Your task to perform on an android device: Search for seafood restaurants on Google Maps Image 0: 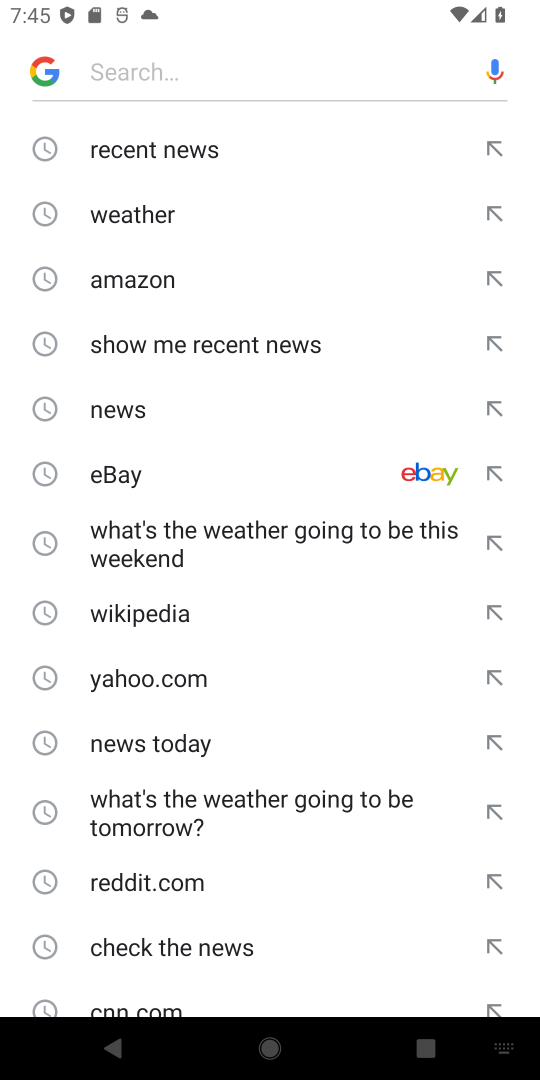
Step 0: press home button
Your task to perform on an android device: Search for seafood restaurants on Google Maps Image 1: 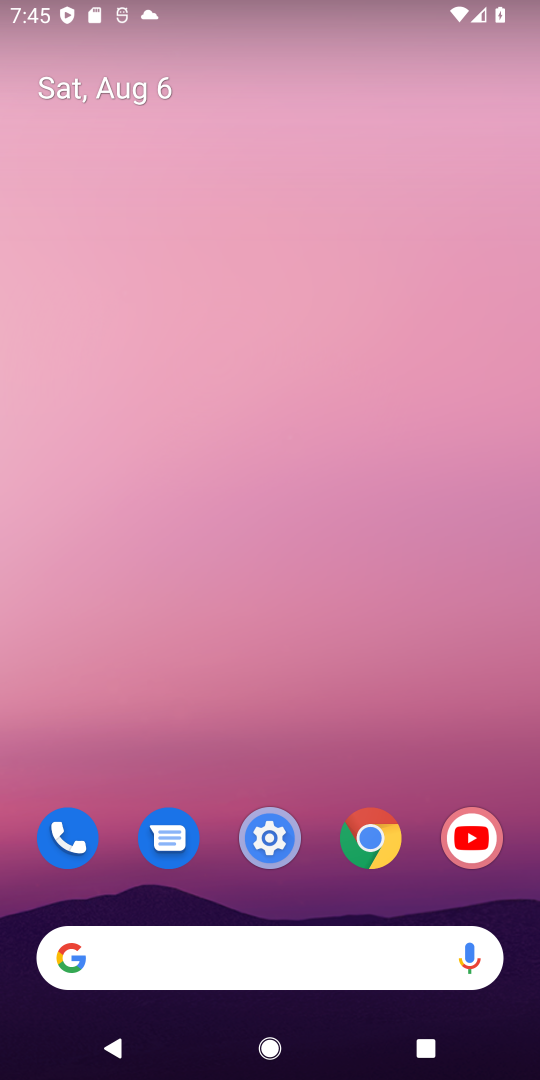
Step 1: drag from (291, 779) to (346, 161)
Your task to perform on an android device: Search for seafood restaurants on Google Maps Image 2: 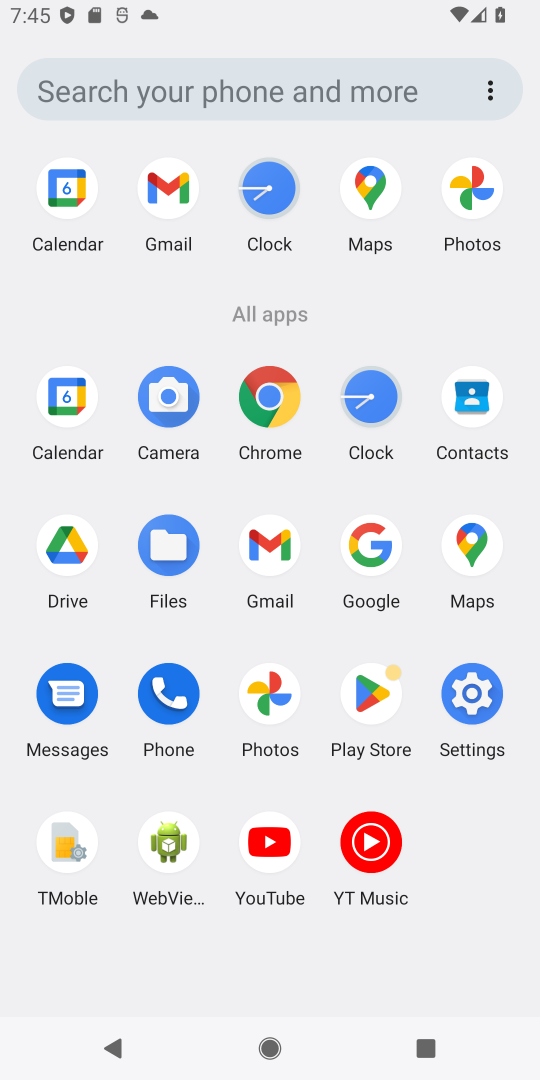
Step 2: click (460, 549)
Your task to perform on an android device: Search for seafood restaurants on Google Maps Image 3: 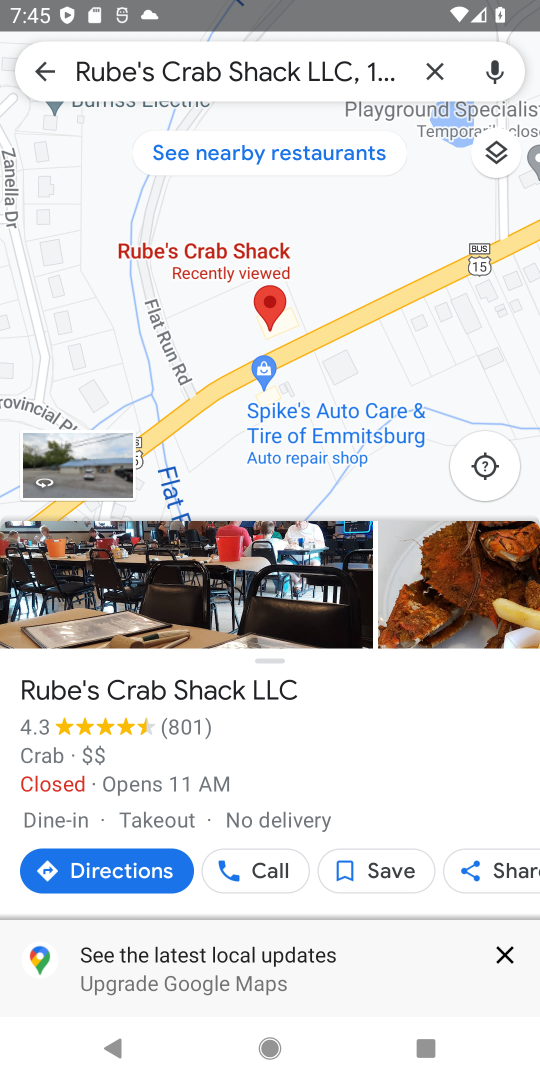
Step 3: click (46, 65)
Your task to perform on an android device: Search for seafood restaurants on Google Maps Image 4: 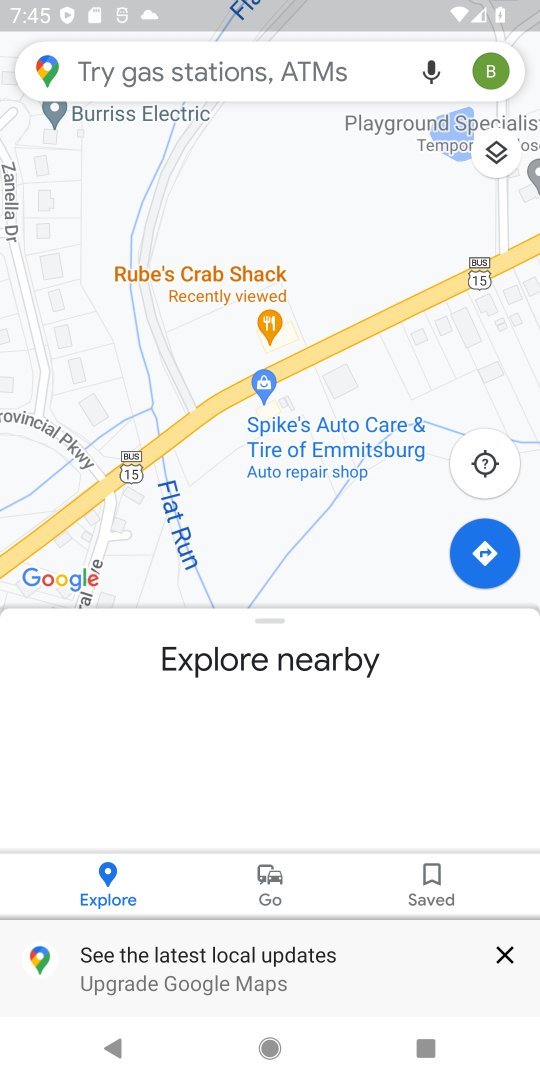
Step 4: click (216, 92)
Your task to perform on an android device: Search for seafood restaurants on Google Maps Image 5: 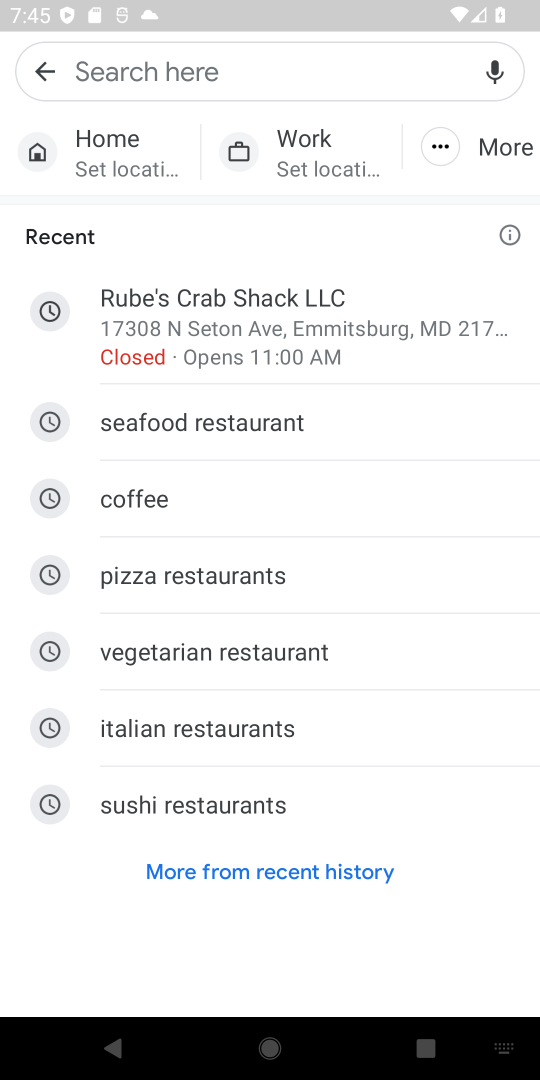
Step 5: type "seafood restaurants"
Your task to perform on an android device: Search for seafood restaurants on Google Maps Image 6: 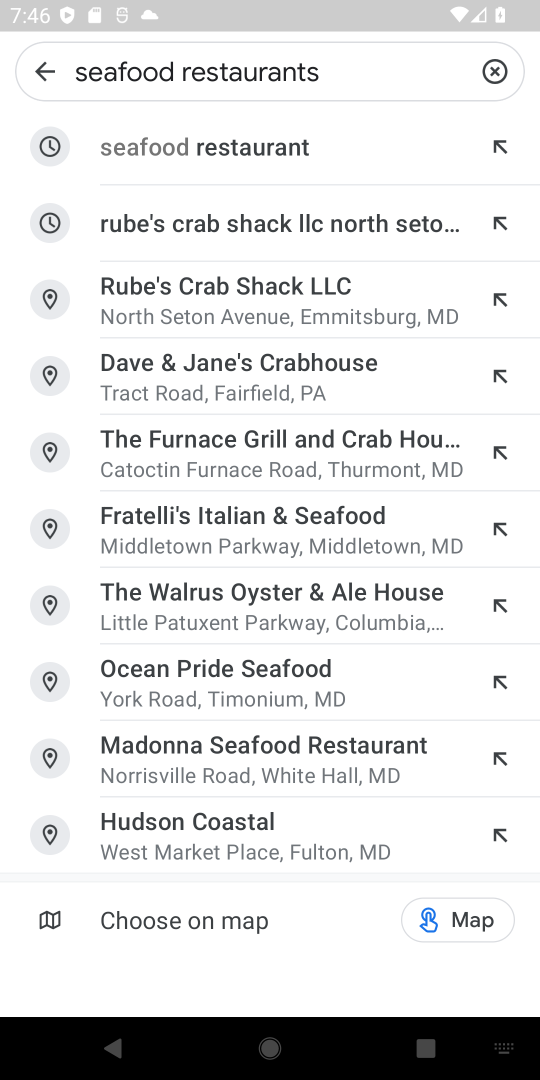
Step 6: click (256, 139)
Your task to perform on an android device: Search for seafood restaurants on Google Maps Image 7: 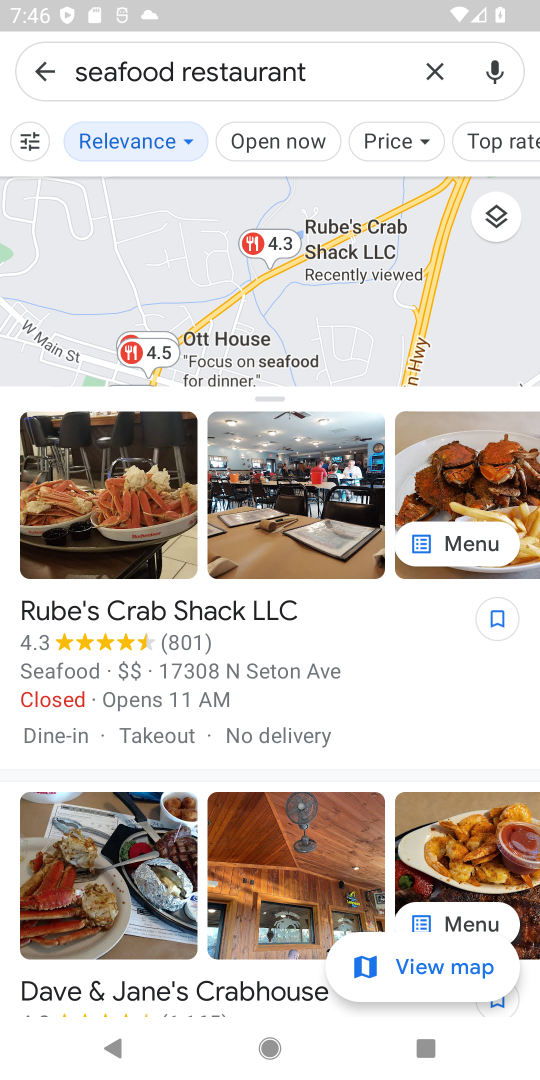
Step 7: task complete